Your task to perform on an android device: move an email to a new category in the gmail app Image 0: 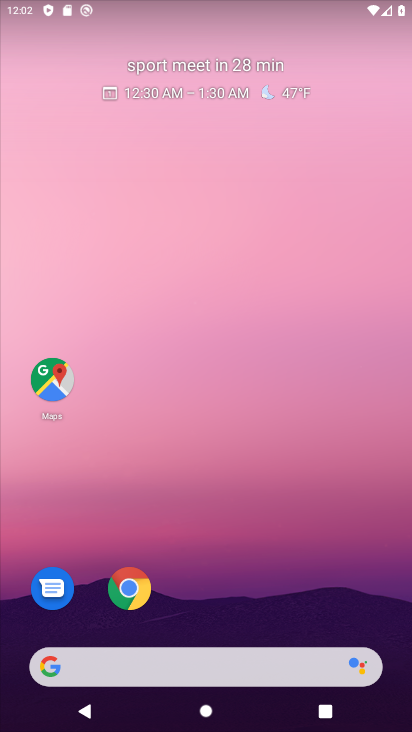
Step 0: drag from (256, 486) to (291, 28)
Your task to perform on an android device: move an email to a new category in the gmail app Image 1: 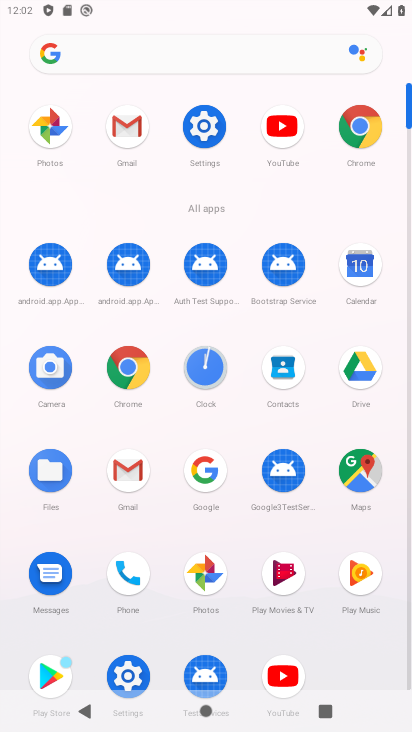
Step 1: click (131, 124)
Your task to perform on an android device: move an email to a new category in the gmail app Image 2: 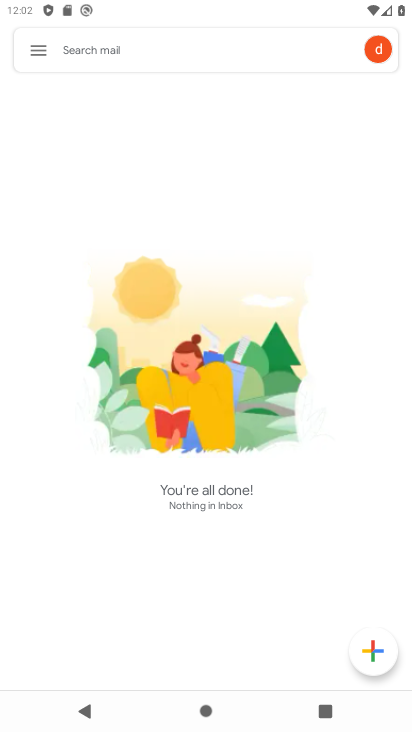
Step 2: click (39, 46)
Your task to perform on an android device: move an email to a new category in the gmail app Image 3: 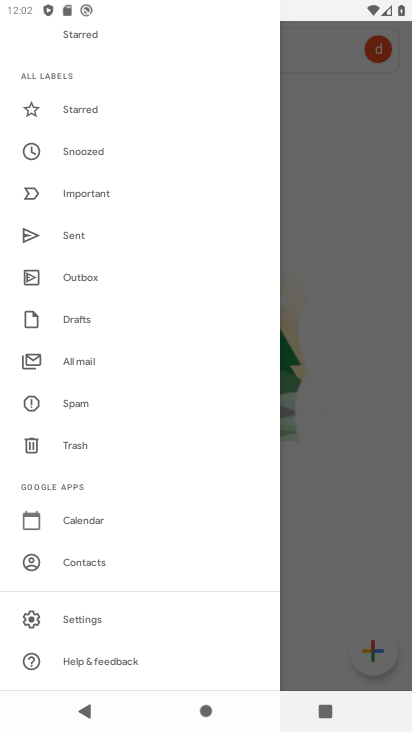
Step 3: click (89, 353)
Your task to perform on an android device: move an email to a new category in the gmail app Image 4: 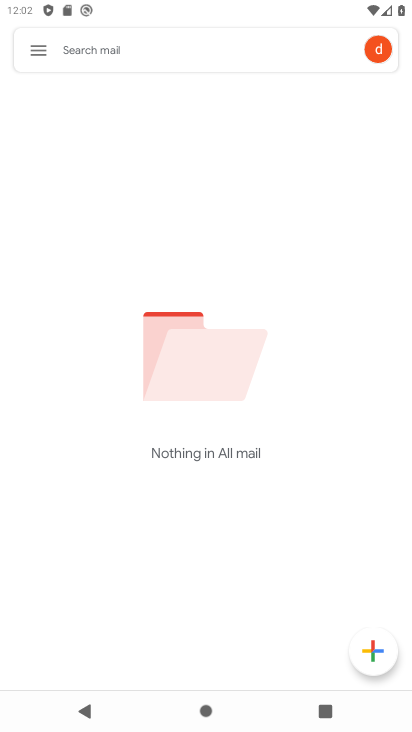
Step 4: task complete